Your task to perform on an android device: turn vacation reply on in the gmail app Image 0: 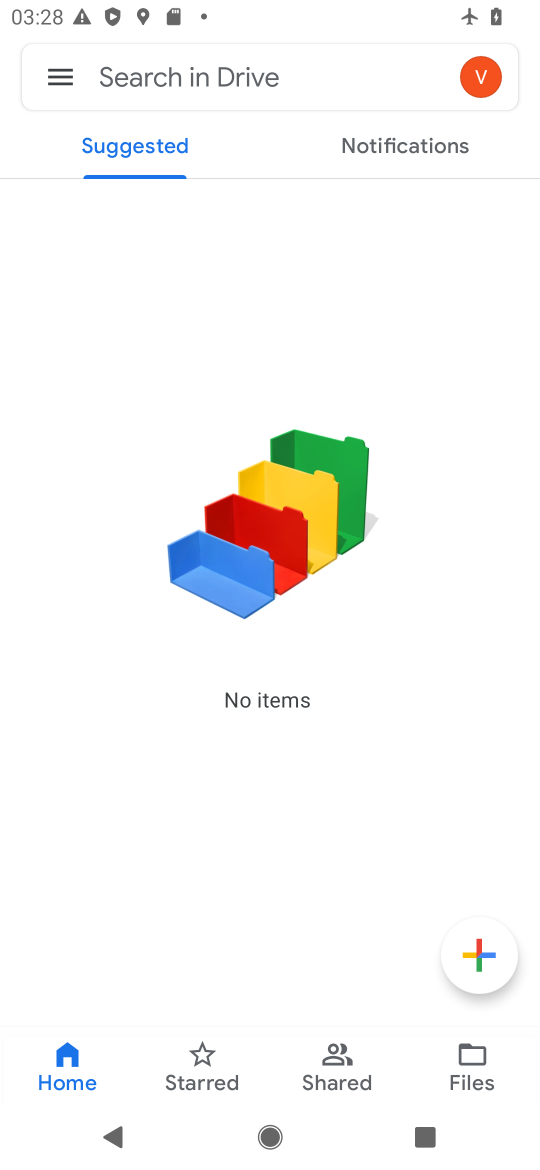
Step 0: press home button
Your task to perform on an android device: turn vacation reply on in the gmail app Image 1: 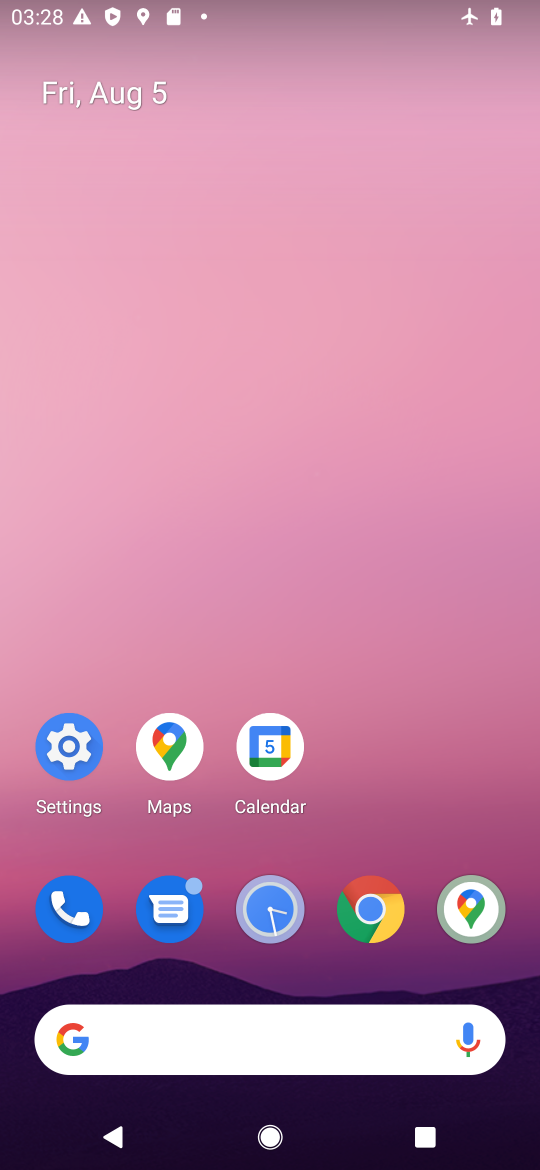
Step 1: drag from (393, 776) to (392, 16)
Your task to perform on an android device: turn vacation reply on in the gmail app Image 2: 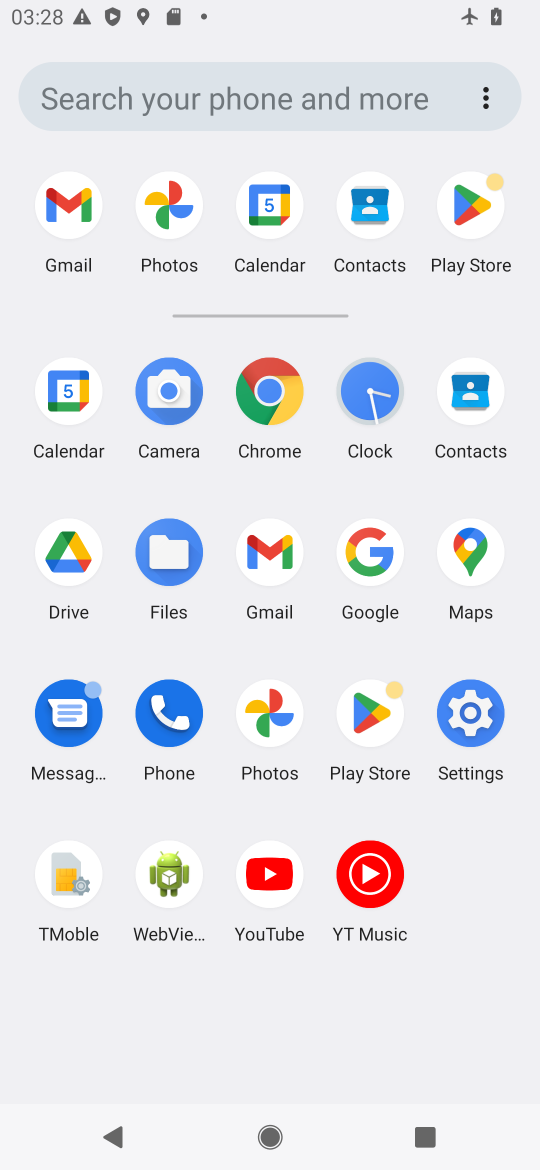
Step 2: click (275, 544)
Your task to perform on an android device: turn vacation reply on in the gmail app Image 3: 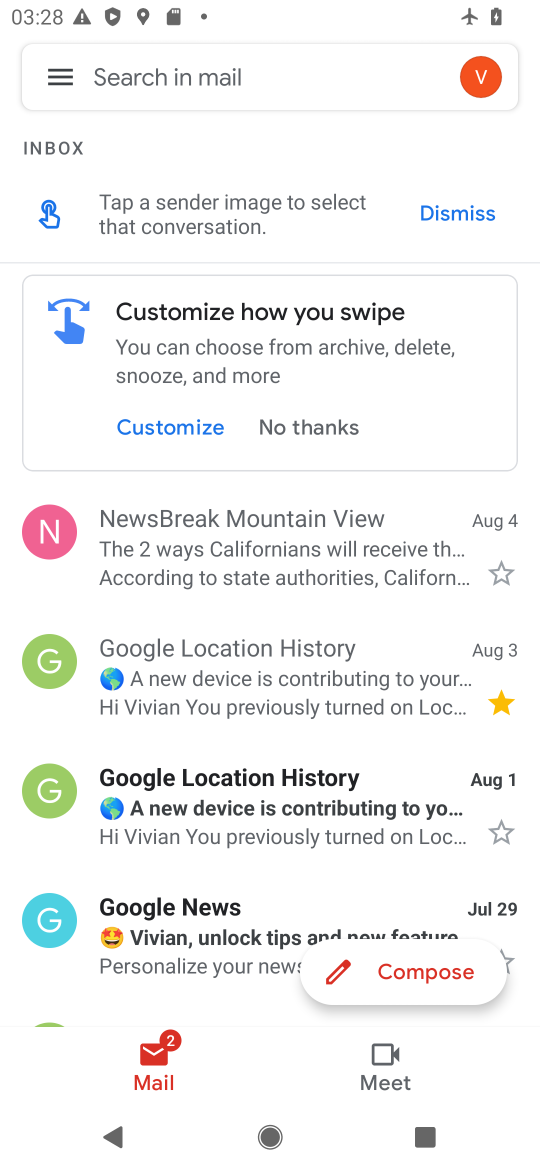
Step 3: click (59, 70)
Your task to perform on an android device: turn vacation reply on in the gmail app Image 4: 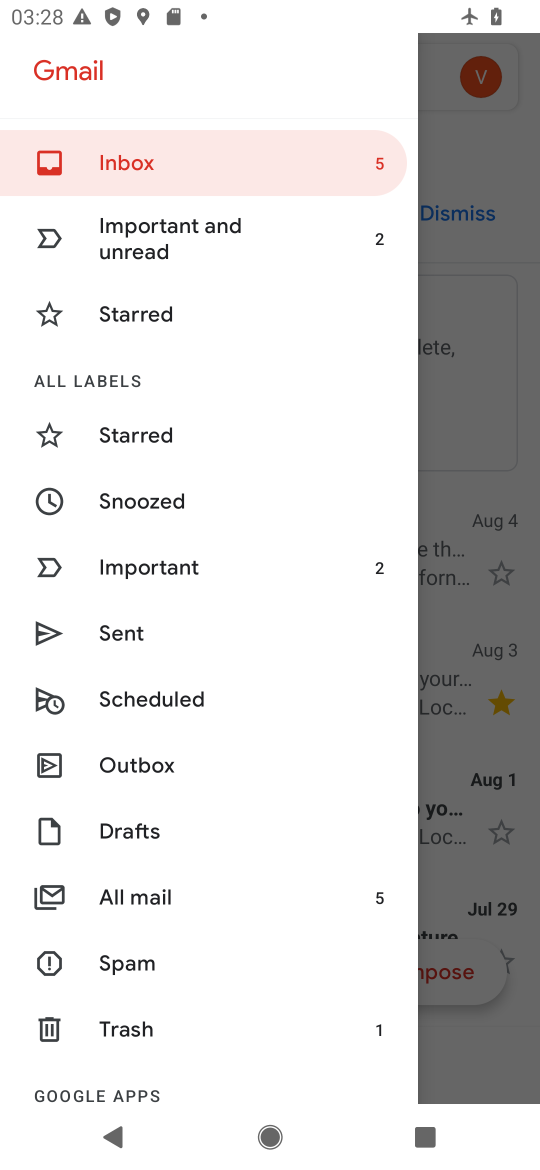
Step 4: drag from (213, 1010) to (247, 355)
Your task to perform on an android device: turn vacation reply on in the gmail app Image 5: 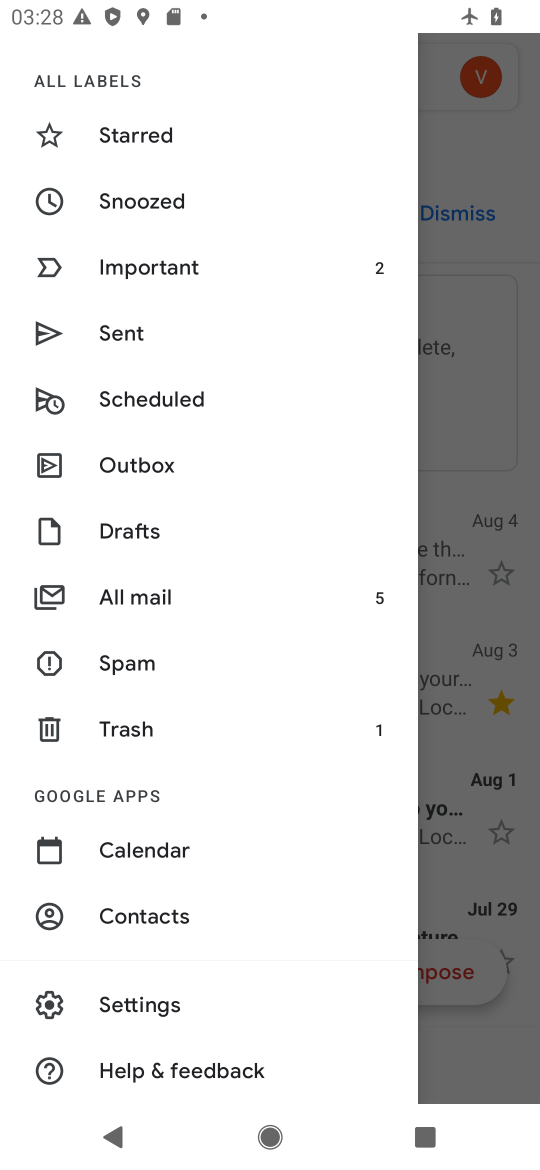
Step 5: click (136, 1002)
Your task to perform on an android device: turn vacation reply on in the gmail app Image 6: 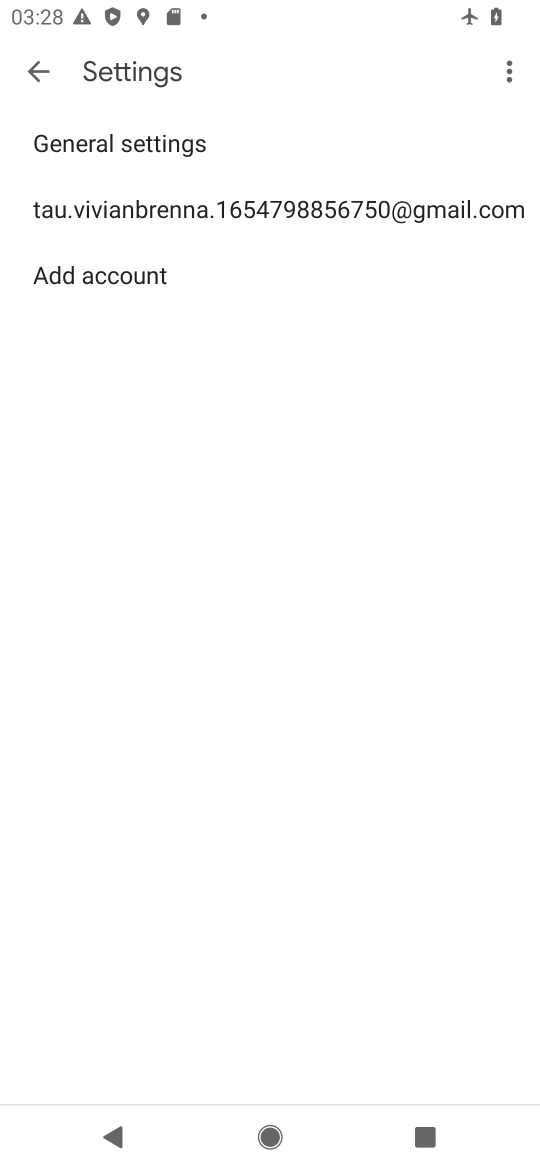
Step 6: click (169, 215)
Your task to perform on an android device: turn vacation reply on in the gmail app Image 7: 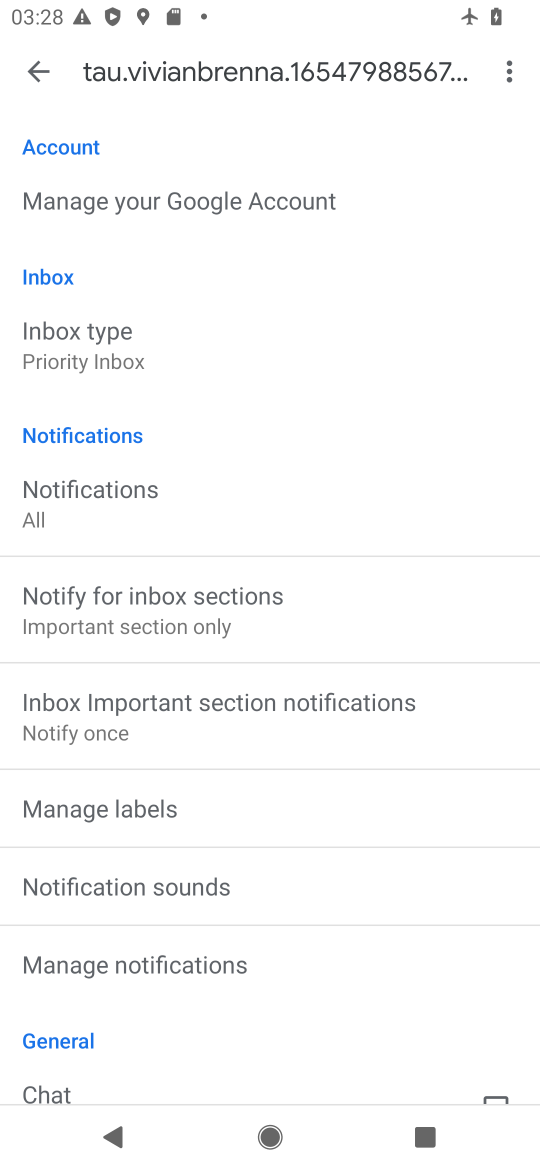
Step 7: drag from (247, 985) to (266, 484)
Your task to perform on an android device: turn vacation reply on in the gmail app Image 8: 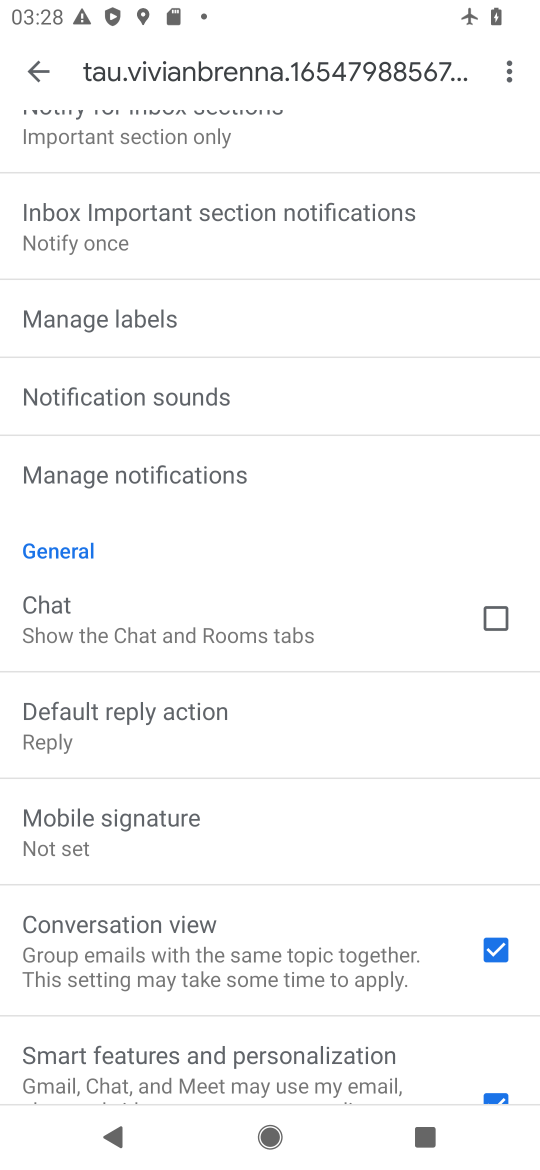
Step 8: drag from (304, 848) to (306, 322)
Your task to perform on an android device: turn vacation reply on in the gmail app Image 9: 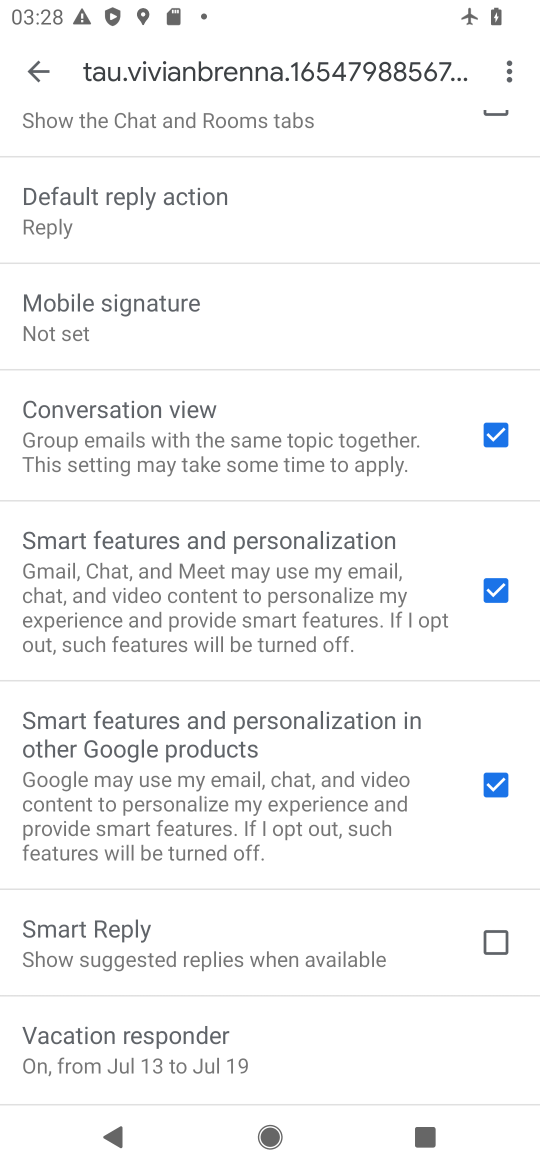
Step 9: click (208, 1046)
Your task to perform on an android device: turn vacation reply on in the gmail app Image 10: 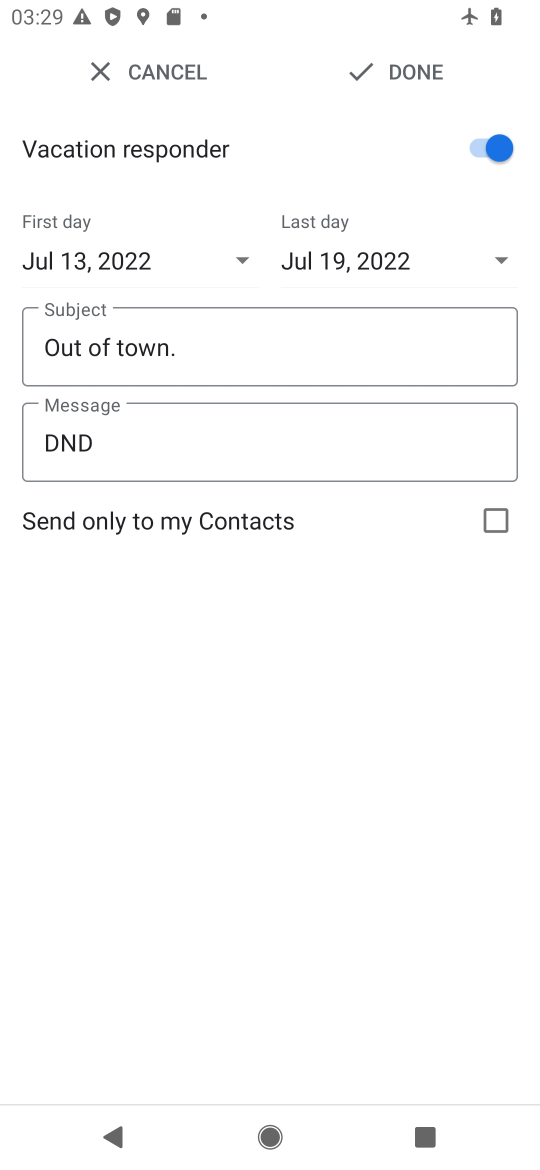
Step 10: task complete